Your task to perform on an android device: toggle location history Image 0: 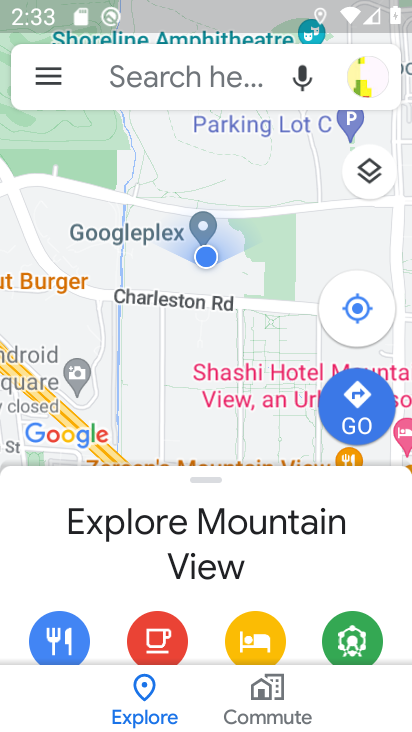
Step 0: drag from (219, 13) to (71, 694)
Your task to perform on an android device: toggle location history Image 1: 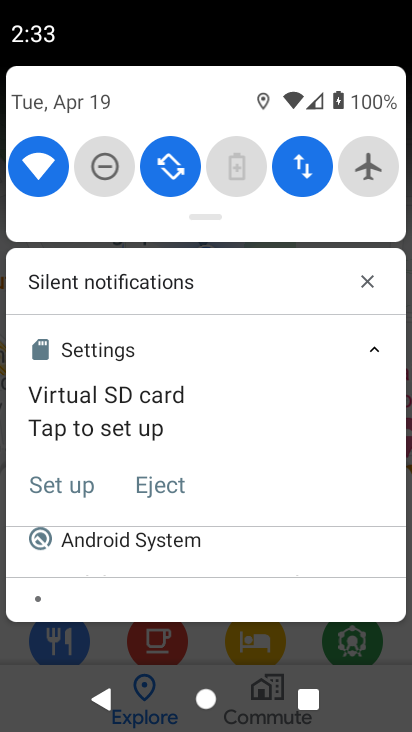
Step 1: drag from (216, 182) to (181, 602)
Your task to perform on an android device: toggle location history Image 2: 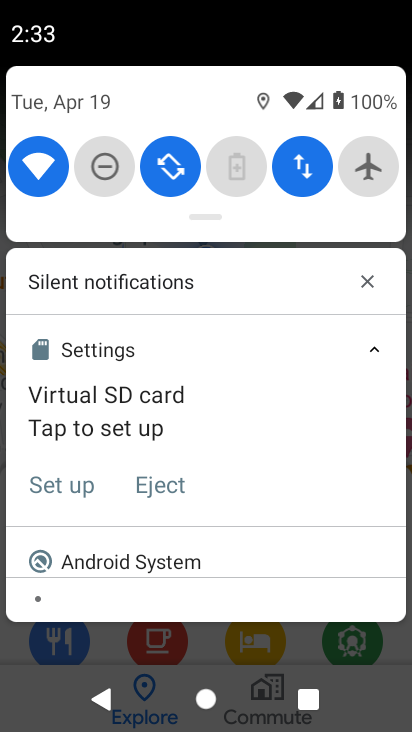
Step 2: drag from (223, 116) to (222, 704)
Your task to perform on an android device: toggle location history Image 3: 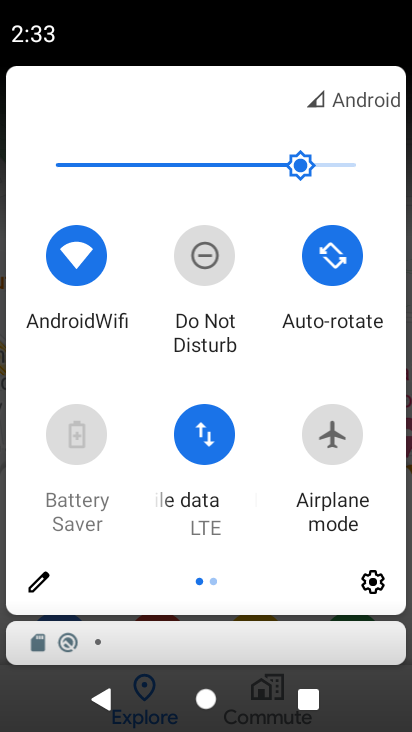
Step 3: click (372, 578)
Your task to perform on an android device: toggle location history Image 4: 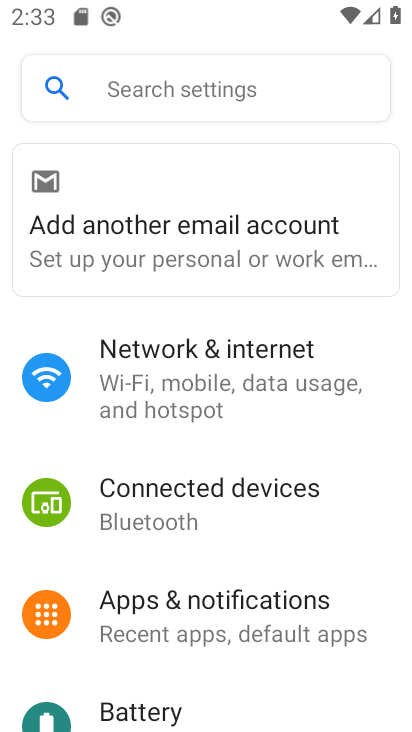
Step 4: drag from (136, 615) to (185, 98)
Your task to perform on an android device: toggle location history Image 5: 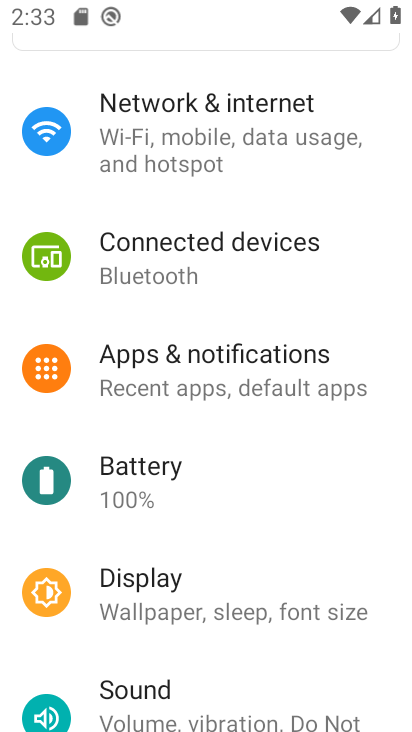
Step 5: drag from (119, 643) to (196, 160)
Your task to perform on an android device: toggle location history Image 6: 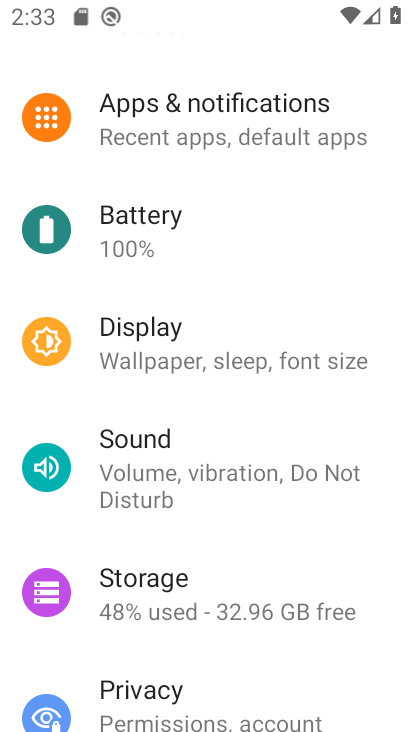
Step 6: drag from (124, 629) to (244, 139)
Your task to perform on an android device: toggle location history Image 7: 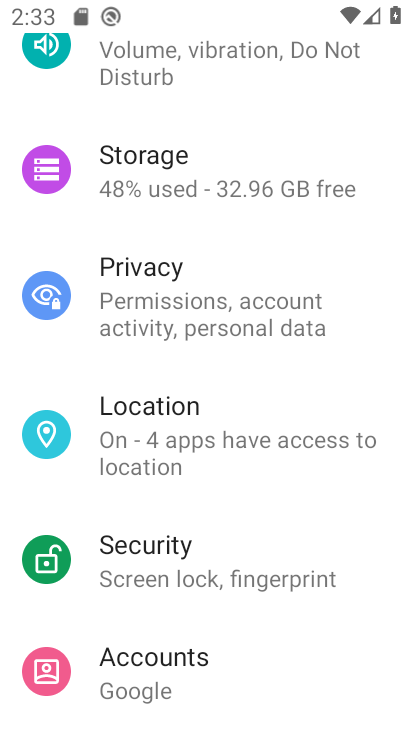
Step 7: click (165, 432)
Your task to perform on an android device: toggle location history Image 8: 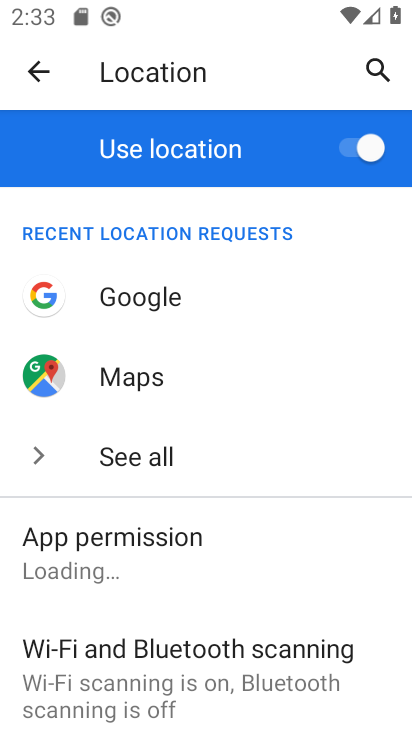
Step 8: drag from (116, 576) to (164, 57)
Your task to perform on an android device: toggle location history Image 9: 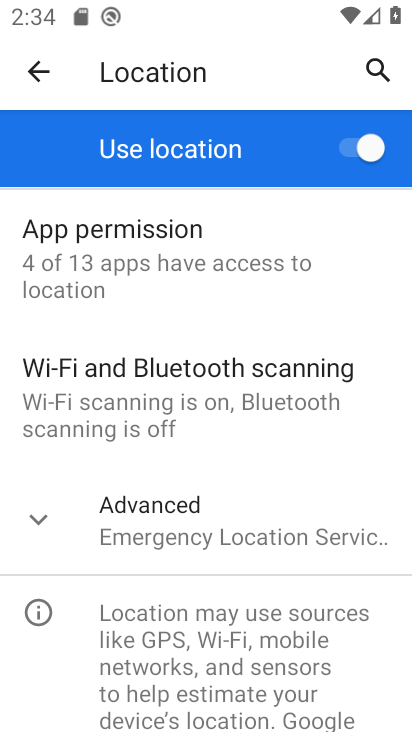
Step 9: click (210, 507)
Your task to perform on an android device: toggle location history Image 10: 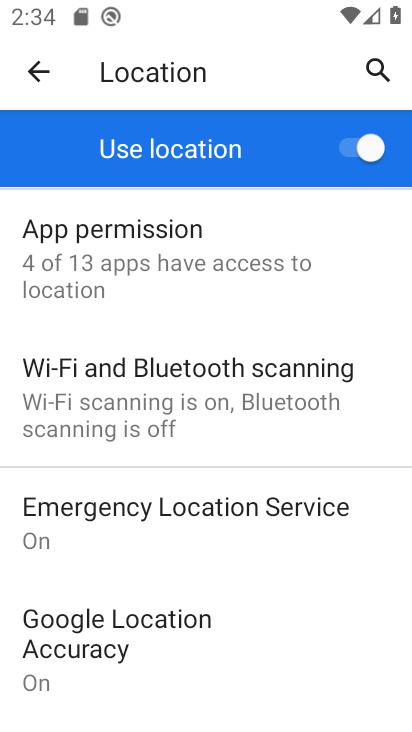
Step 10: drag from (170, 692) to (171, 200)
Your task to perform on an android device: toggle location history Image 11: 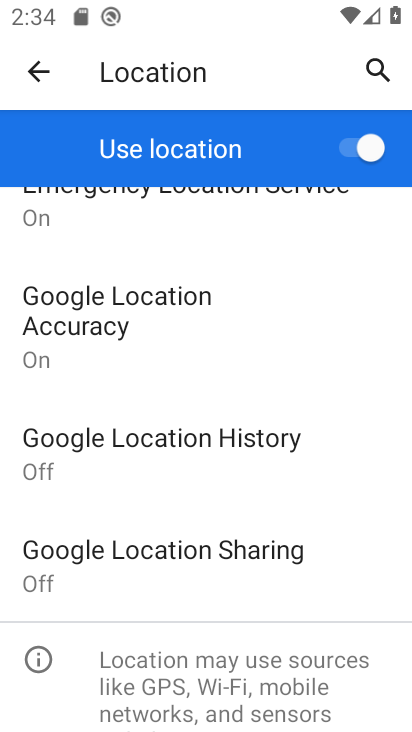
Step 11: click (180, 460)
Your task to perform on an android device: toggle location history Image 12: 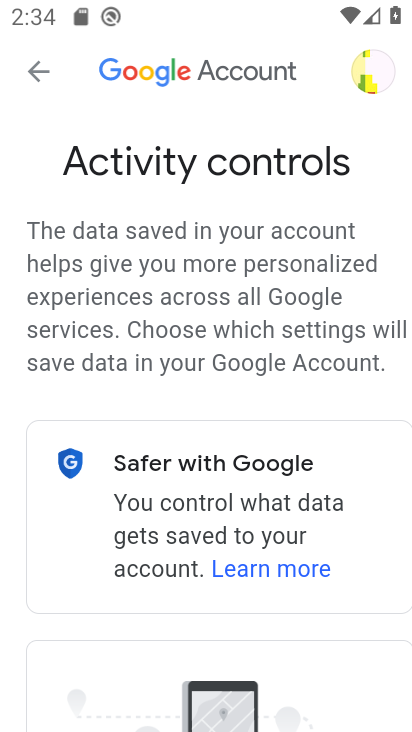
Step 12: drag from (134, 684) to (185, 103)
Your task to perform on an android device: toggle location history Image 13: 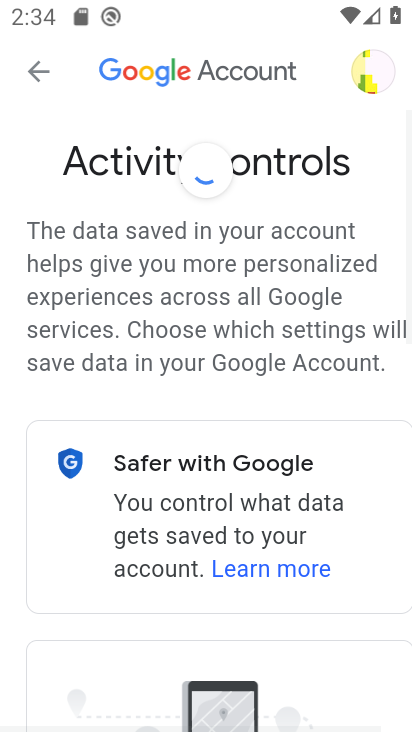
Step 13: drag from (192, 602) to (208, 149)
Your task to perform on an android device: toggle location history Image 14: 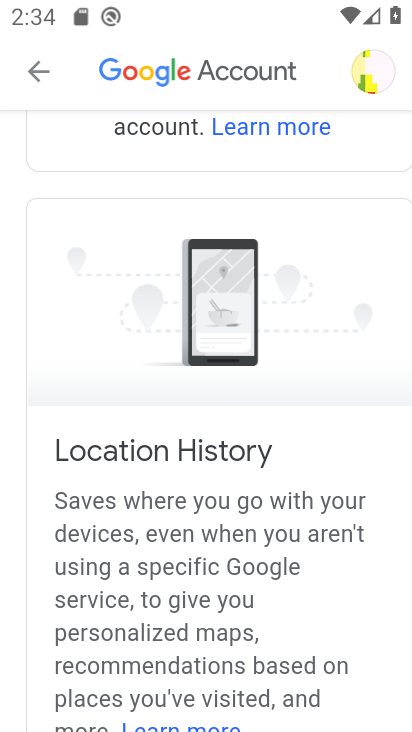
Step 14: drag from (123, 566) to (151, 113)
Your task to perform on an android device: toggle location history Image 15: 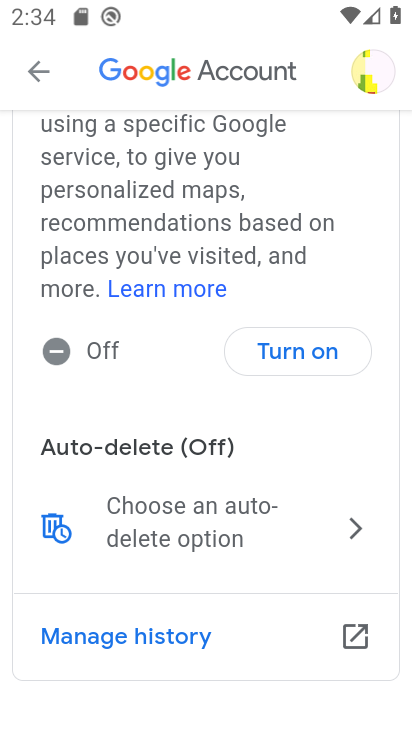
Step 15: click (289, 357)
Your task to perform on an android device: toggle location history Image 16: 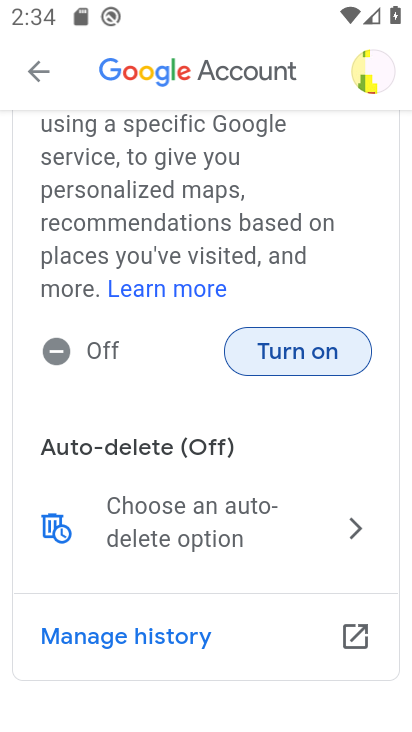
Step 16: click (289, 357)
Your task to perform on an android device: toggle location history Image 17: 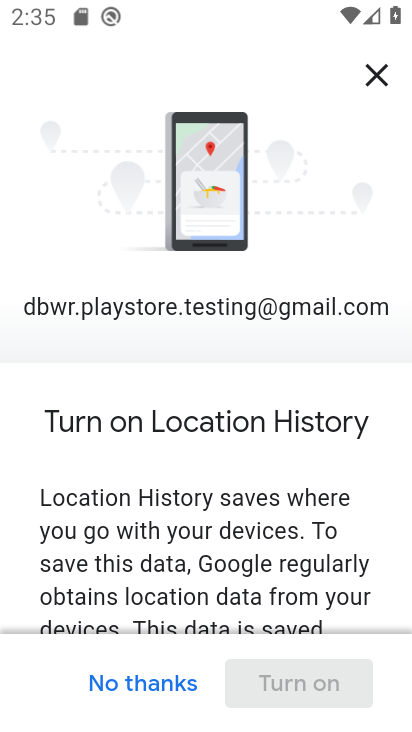
Step 17: drag from (129, 584) to (172, 134)
Your task to perform on an android device: toggle location history Image 18: 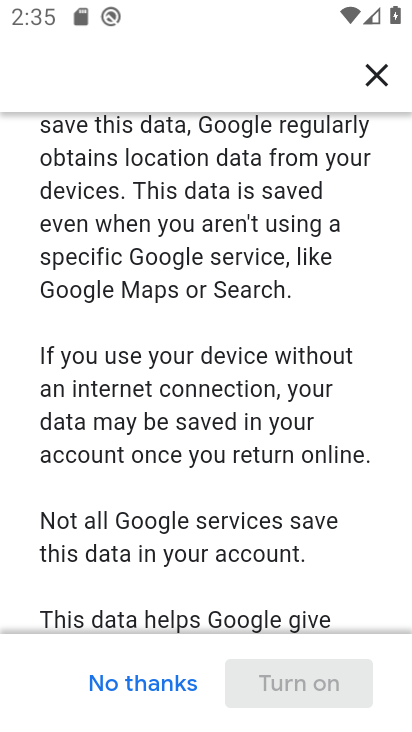
Step 18: drag from (226, 607) to (336, 113)
Your task to perform on an android device: toggle location history Image 19: 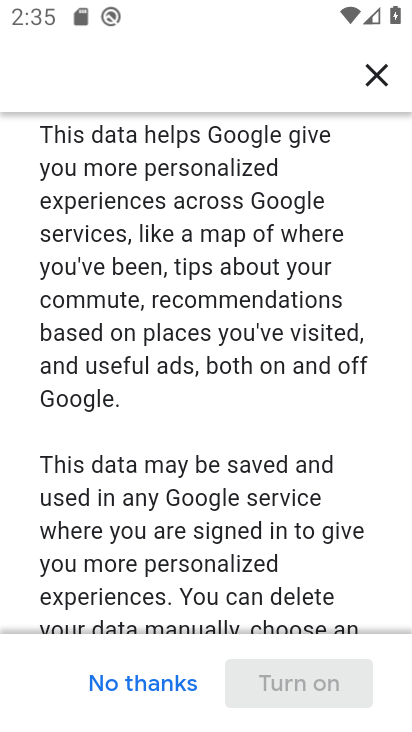
Step 19: drag from (236, 494) to (287, 3)
Your task to perform on an android device: toggle location history Image 20: 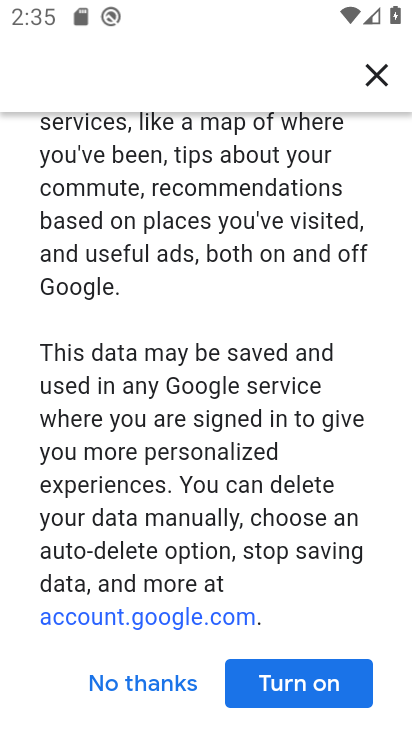
Step 20: drag from (130, 485) to (158, 159)
Your task to perform on an android device: toggle location history Image 21: 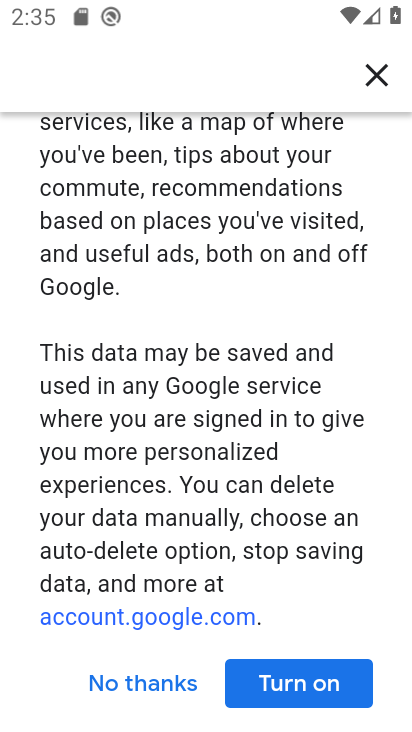
Step 21: drag from (229, 552) to (251, 215)
Your task to perform on an android device: toggle location history Image 22: 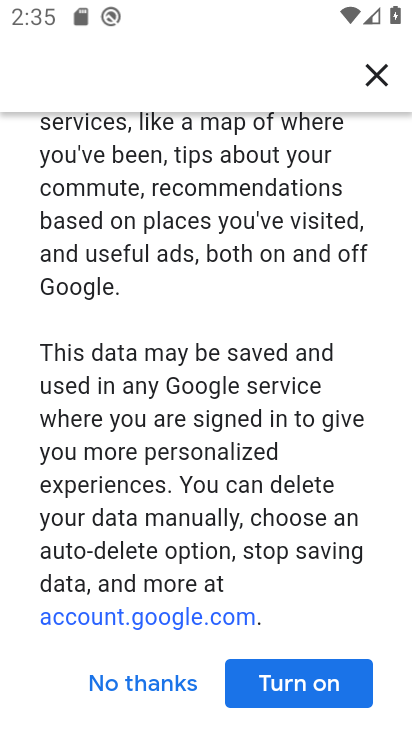
Step 22: click (320, 689)
Your task to perform on an android device: toggle location history Image 23: 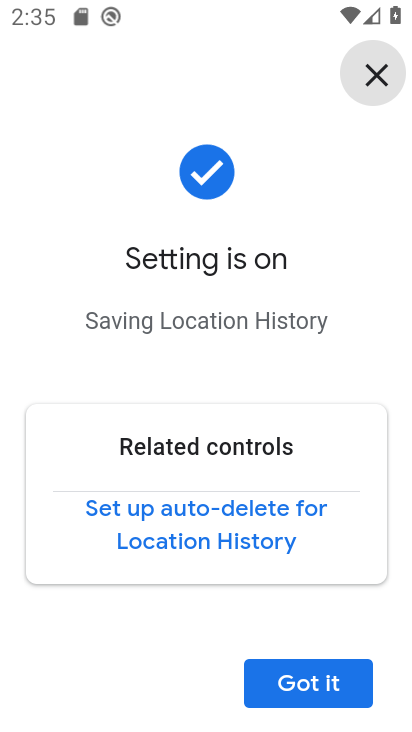
Step 23: click (308, 691)
Your task to perform on an android device: toggle location history Image 24: 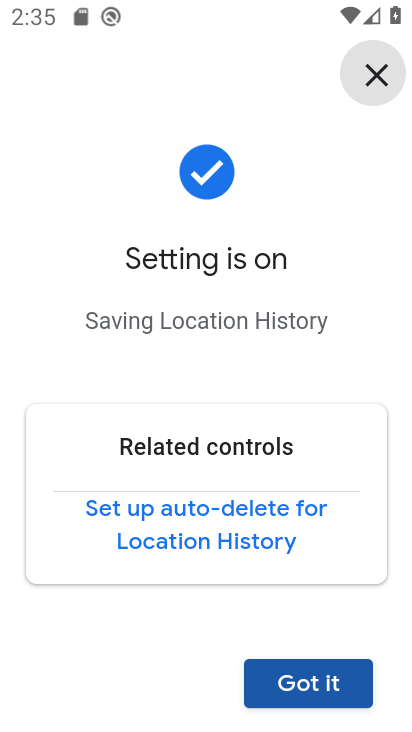
Step 24: click (308, 691)
Your task to perform on an android device: toggle location history Image 25: 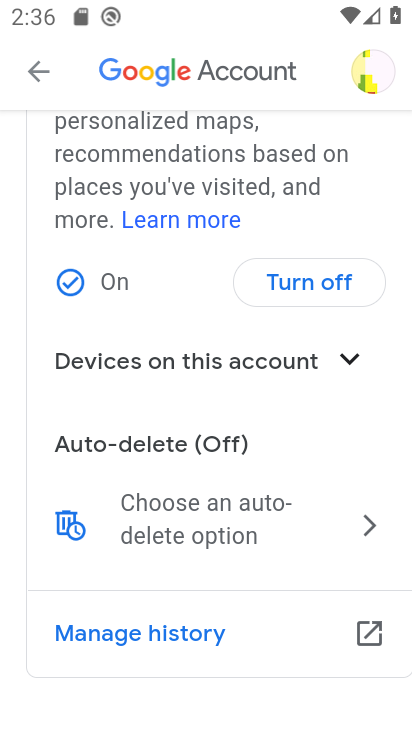
Step 25: click (343, 286)
Your task to perform on an android device: toggle location history Image 26: 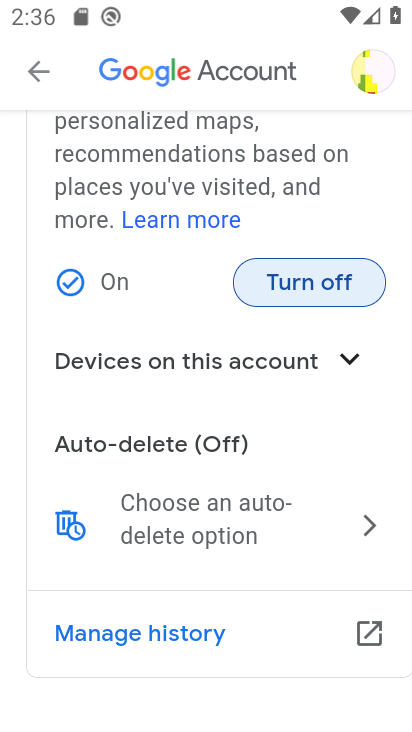
Step 26: click (321, 280)
Your task to perform on an android device: toggle location history Image 27: 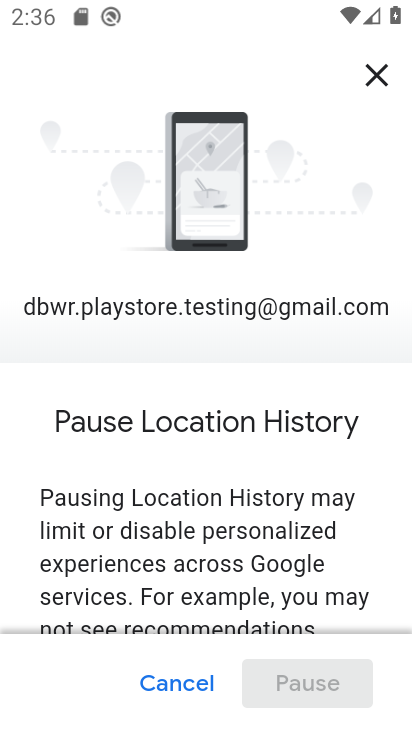
Step 27: drag from (81, 603) to (137, 90)
Your task to perform on an android device: toggle location history Image 28: 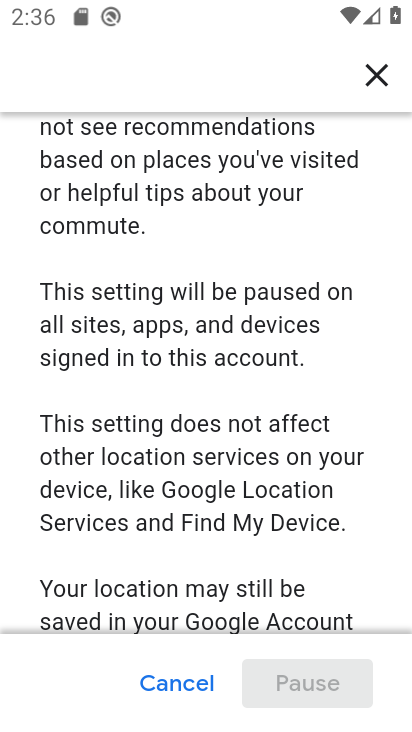
Step 28: drag from (267, 324) to (280, 9)
Your task to perform on an android device: toggle location history Image 29: 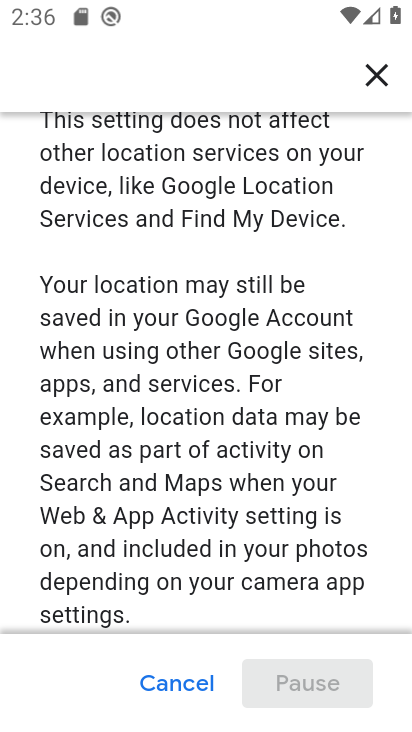
Step 29: drag from (171, 573) to (206, 102)
Your task to perform on an android device: toggle location history Image 30: 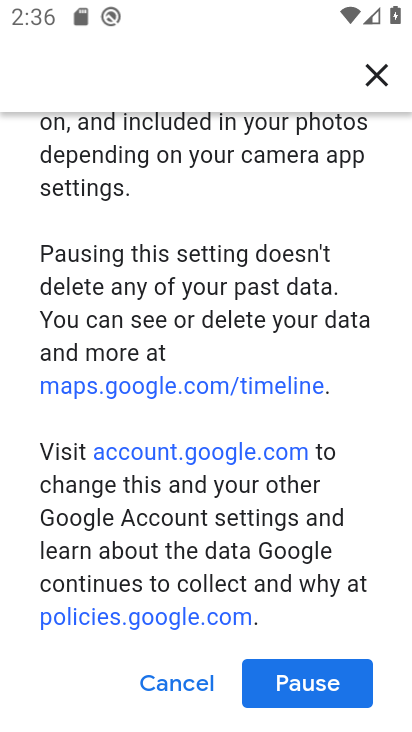
Step 30: click (313, 666)
Your task to perform on an android device: toggle location history Image 31: 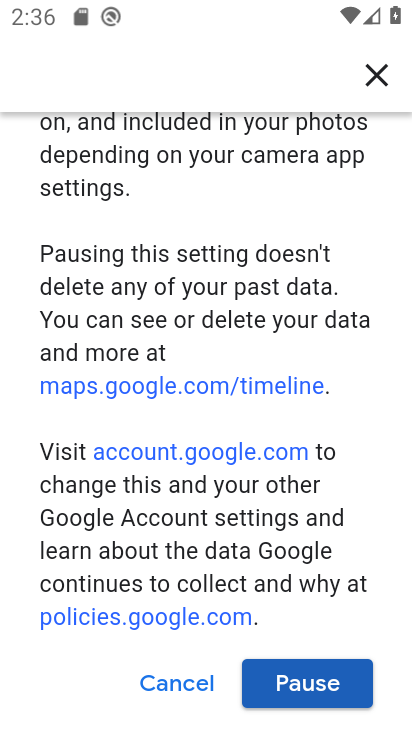
Step 31: click (321, 673)
Your task to perform on an android device: toggle location history Image 32: 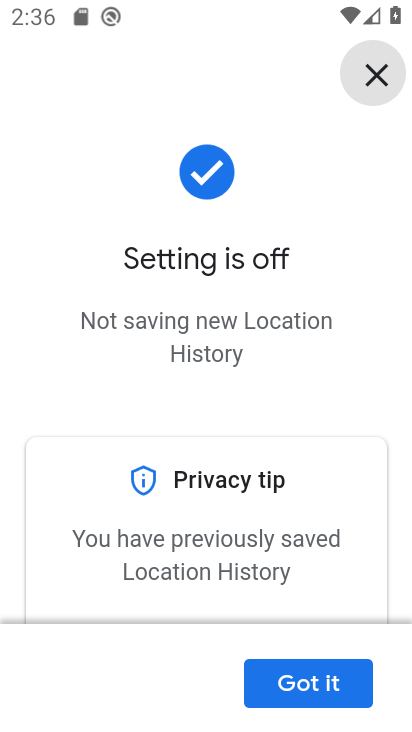
Step 32: click (285, 671)
Your task to perform on an android device: toggle location history Image 33: 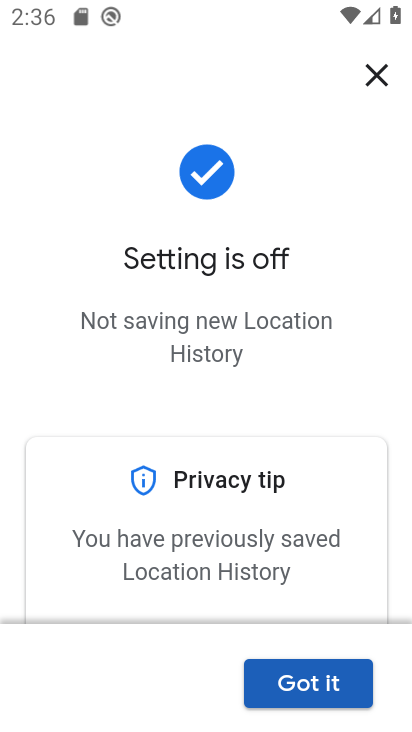
Step 33: click (314, 682)
Your task to perform on an android device: toggle location history Image 34: 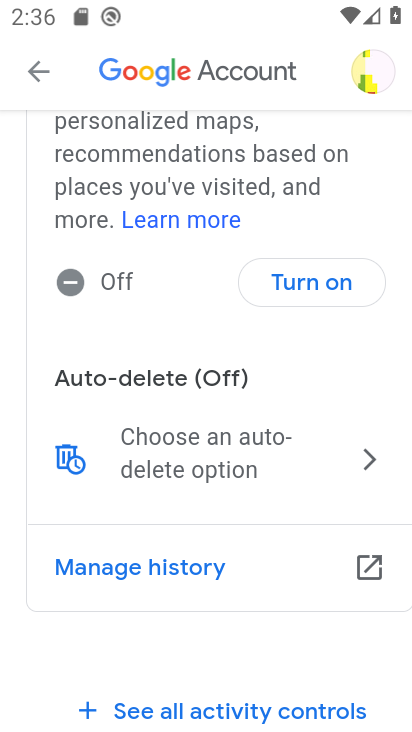
Step 34: task complete